Your task to perform on an android device: turn on translation in the chrome app Image 0: 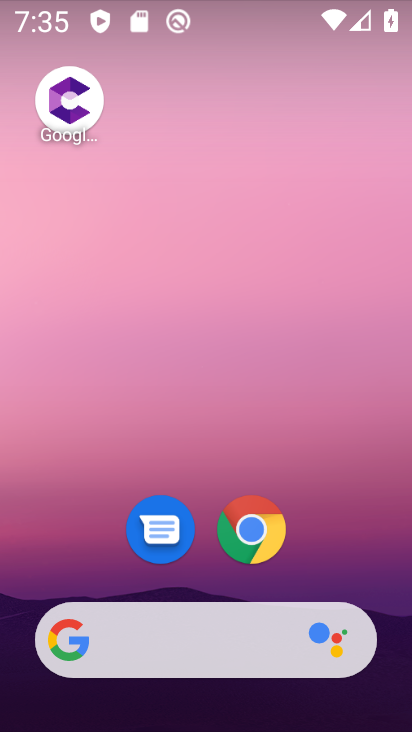
Step 0: click (253, 527)
Your task to perform on an android device: turn on translation in the chrome app Image 1: 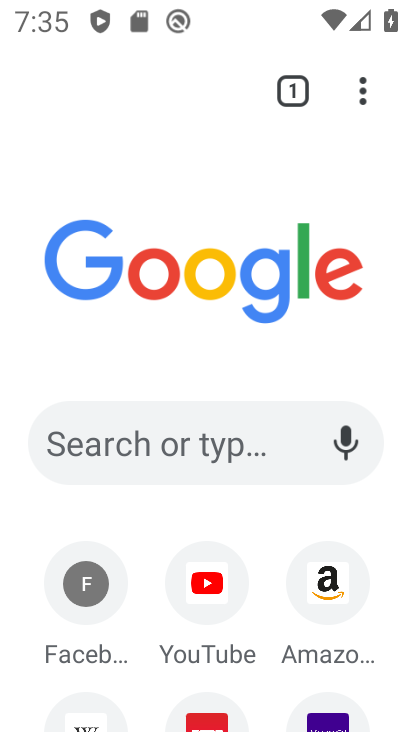
Step 1: click (358, 93)
Your task to perform on an android device: turn on translation in the chrome app Image 2: 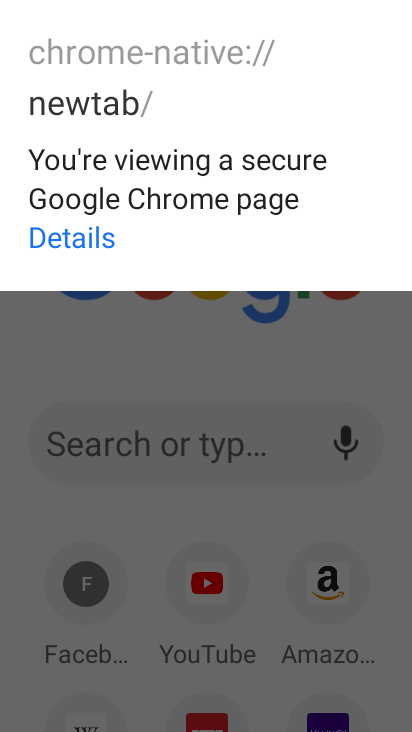
Step 2: press back button
Your task to perform on an android device: turn on translation in the chrome app Image 3: 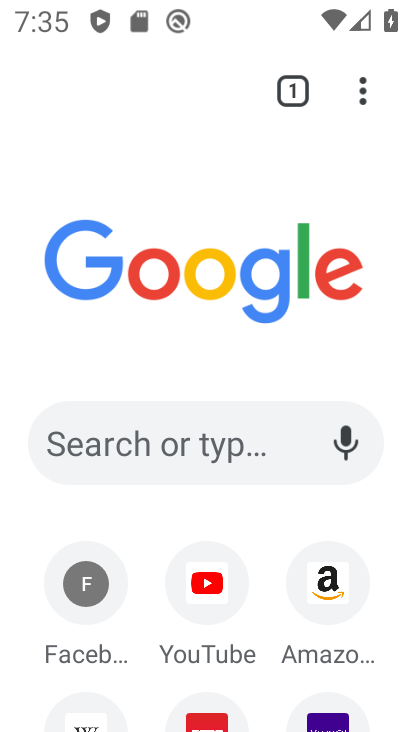
Step 3: click (359, 91)
Your task to perform on an android device: turn on translation in the chrome app Image 4: 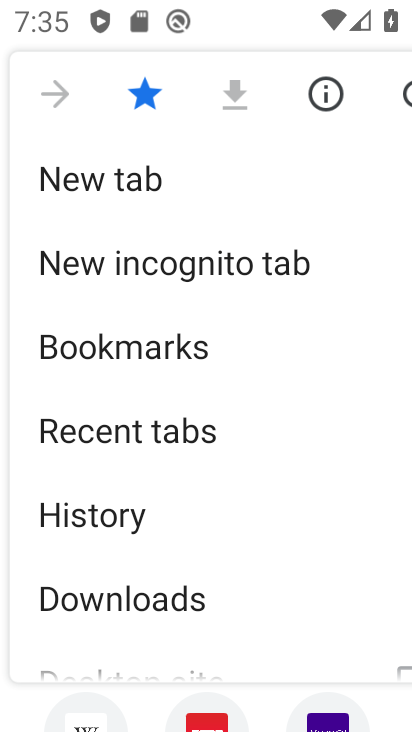
Step 4: drag from (333, 615) to (291, 332)
Your task to perform on an android device: turn on translation in the chrome app Image 5: 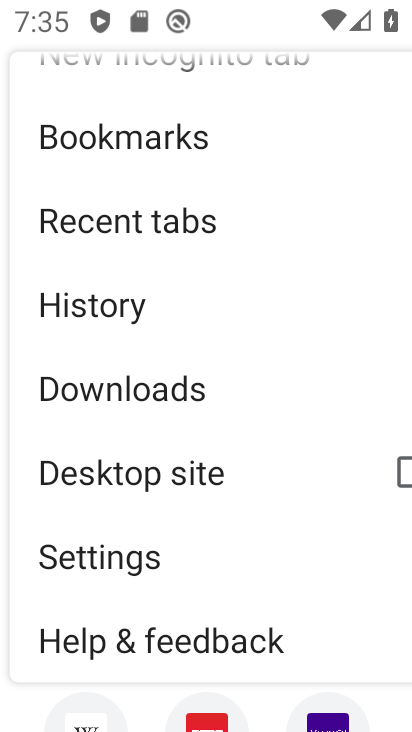
Step 5: click (139, 548)
Your task to perform on an android device: turn on translation in the chrome app Image 6: 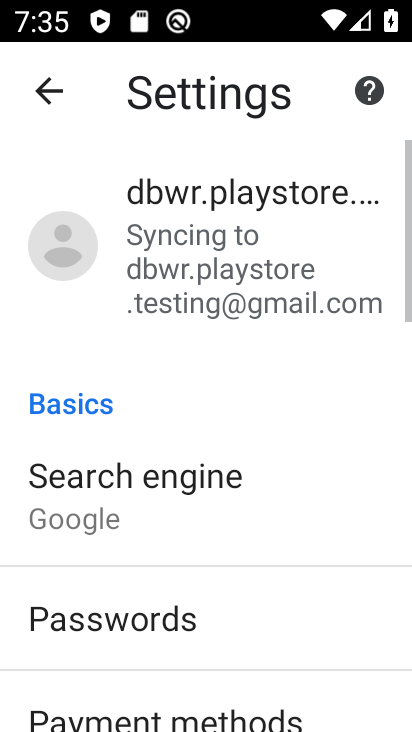
Step 6: drag from (344, 695) to (284, 309)
Your task to perform on an android device: turn on translation in the chrome app Image 7: 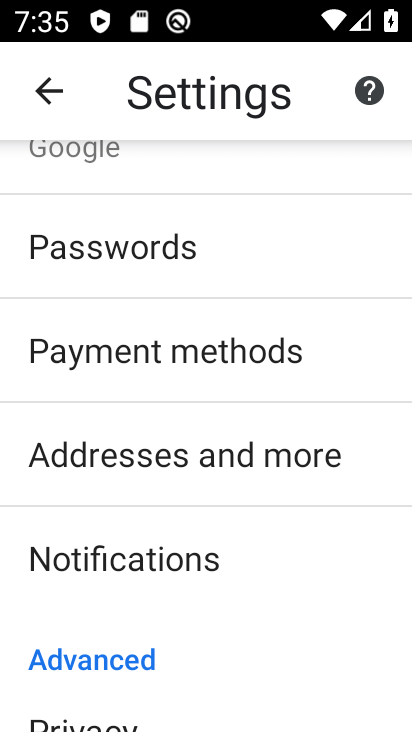
Step 7: drag from (251, 704) to (214, 504)
Your task to perform on an android device: turn on translation in the chrome app Image 8: 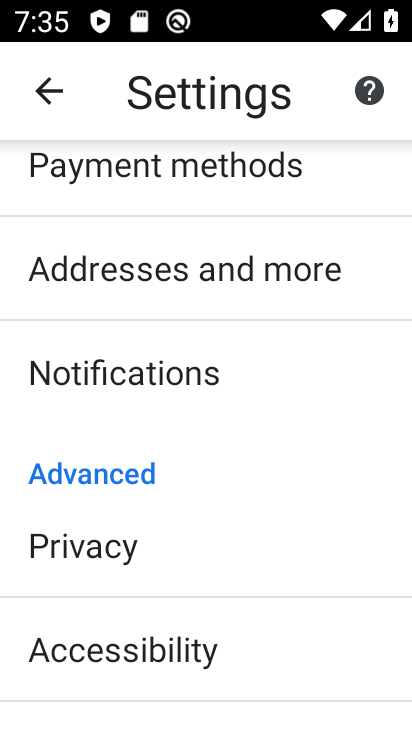
Step 8: drag from (236, 627) to (199, 333)
Your task to perform on an android device: turn on translation in the chrome app Image 9: 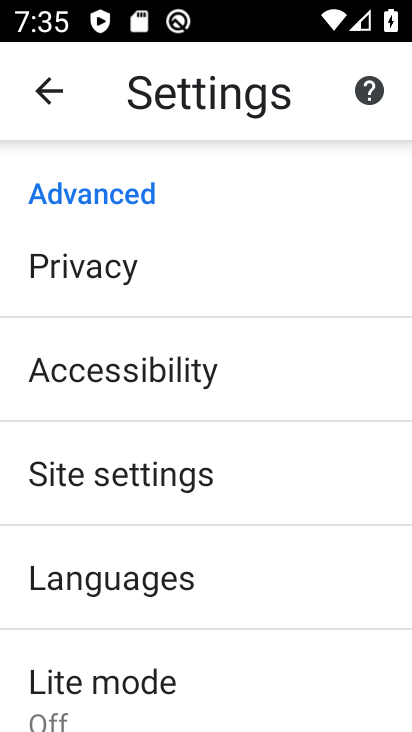
Step 9: drag from (321, 712) to (251, 340)
Your task to perform on an android device: turn on translation in the chrome app Image 10: 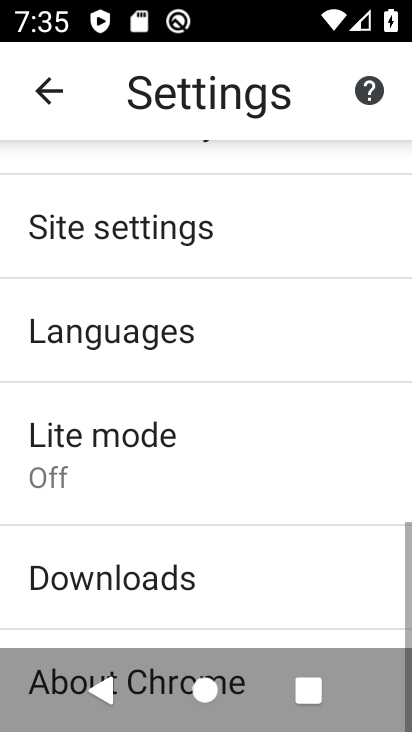
Step 10: click (77, 574)
Your task to perform on an android device: turn on translation in the chrome app Image 11: 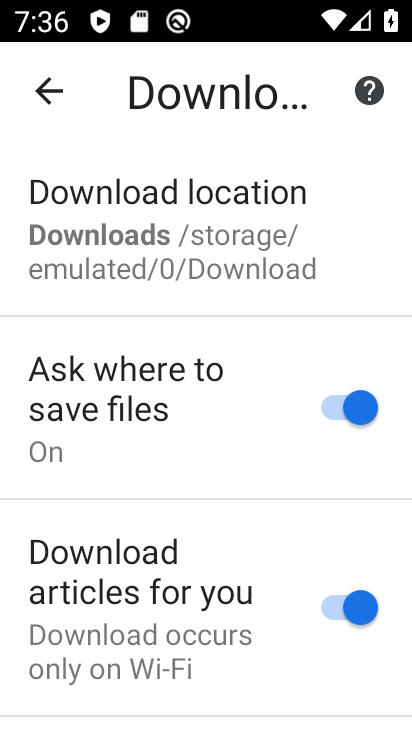
Step 11: drag from (243, 619) to (227, 317)
Your task to perform on an android device: turn on translation in the chrome app Image 12: 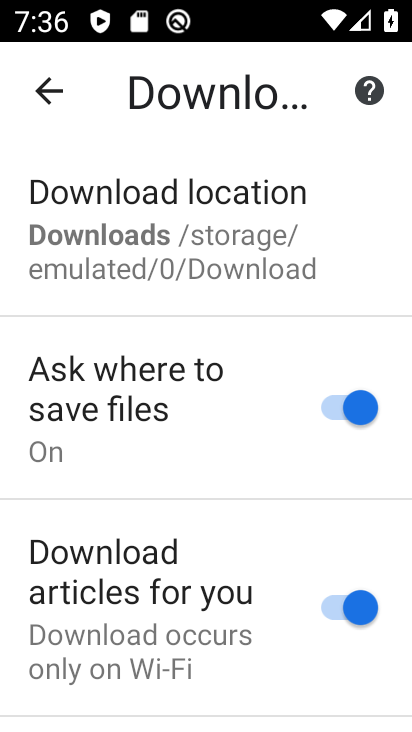
Step 12: drag from (257, 697) to (212, 365)
Your task to perform on an android device: turn on translation in the chrome app Image 13: 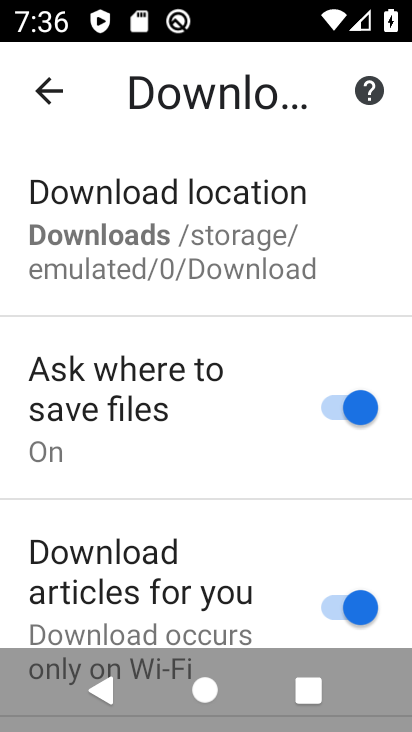
Step 13: click (43, 84)
Your task to perform on an android device: turn on translation in the chrome app Image 14: 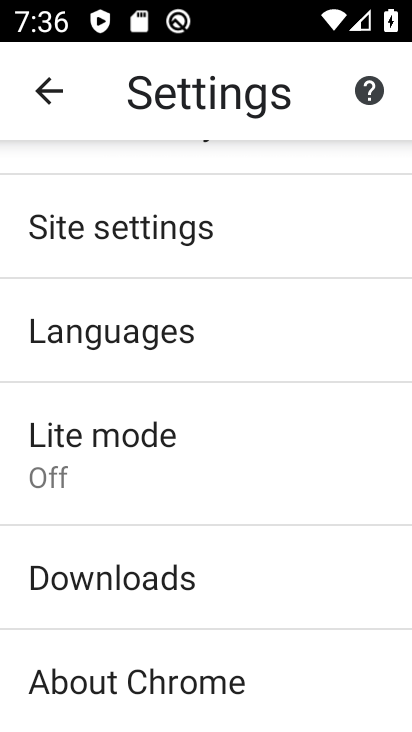
Step 14: drag from (293, 681) to (257, 292)
Your task to perform on an android device: turn on translation in the chrome app Image 15: 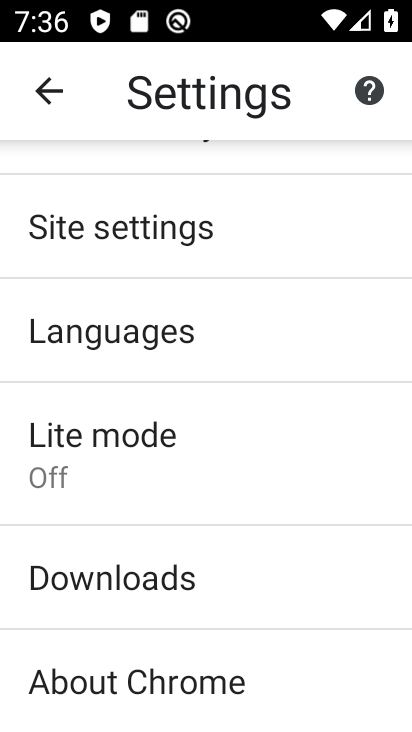
Step 15: click (107, 324)
Your task to perform on an android device: turn on translation in the chrome app Image 16: 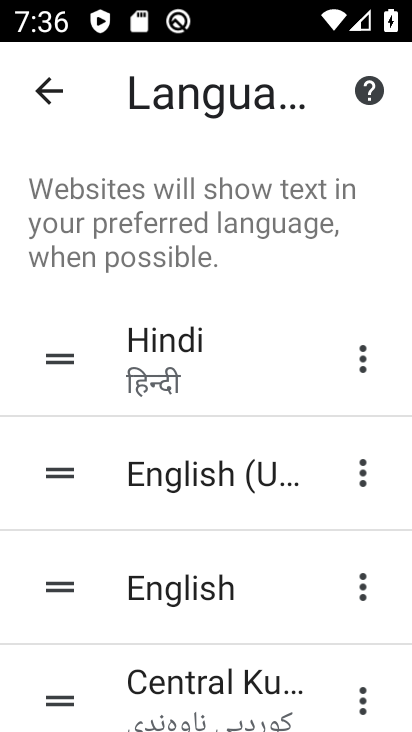
Step 16: drag from (301, 681) to (219, 298)
Your task to perform on an android device: turn on translation in the chrome app Image 17: 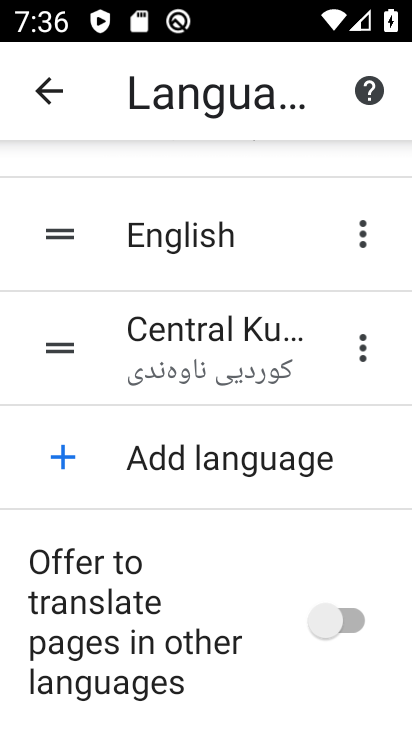
Step 17: click (348, 619)
Your task to perform on an android device: turn on translation in the chrome app Image 18: 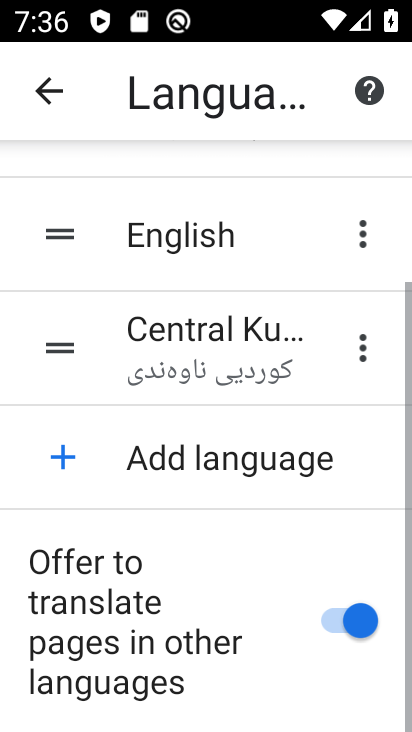
Step 18: task complete